Your task to perform on an android device: open chrome privacy settings Image 0: 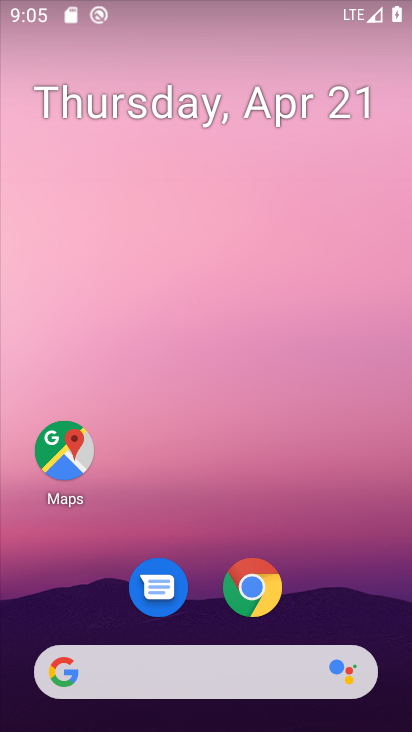
Step 0: click (258, 585)
Your task to perform on an android device: open chrome privacy settings Image 1: 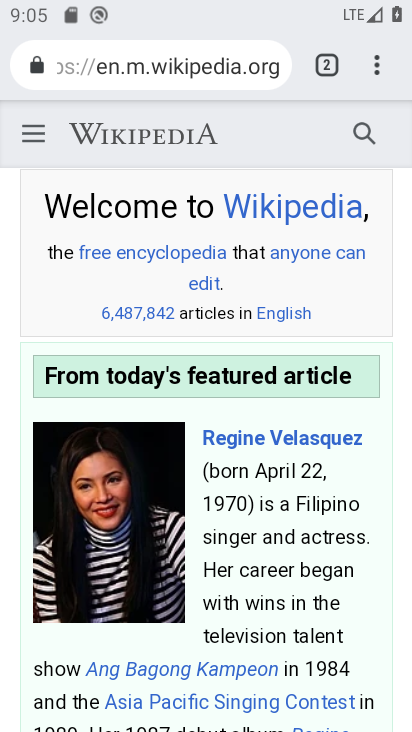
Step 1: click (374, 59)
Your task to perform on an android device: open chrome privacy settings Image 2: 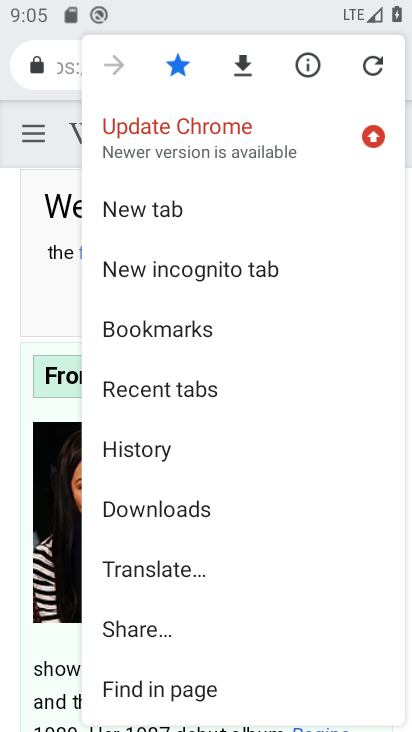
Step 2: drag from (335, 626) to (335, 400)
Your task to perform on an android device: open chrome privacy settings Image 3: 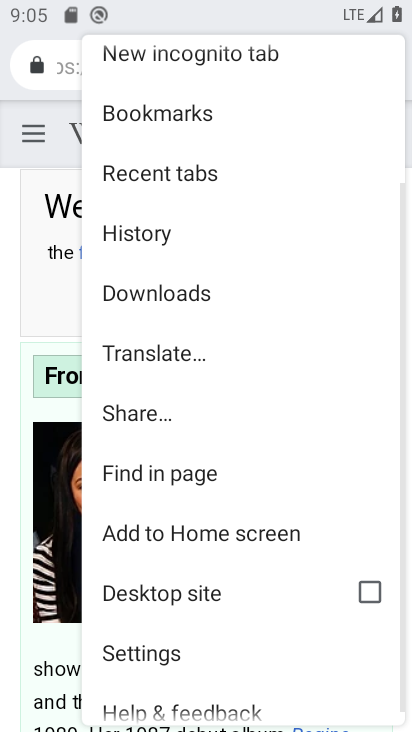
Step 3: click (144, 646)
Your task to perform on an android device: open chrome privacy settings Image 4: 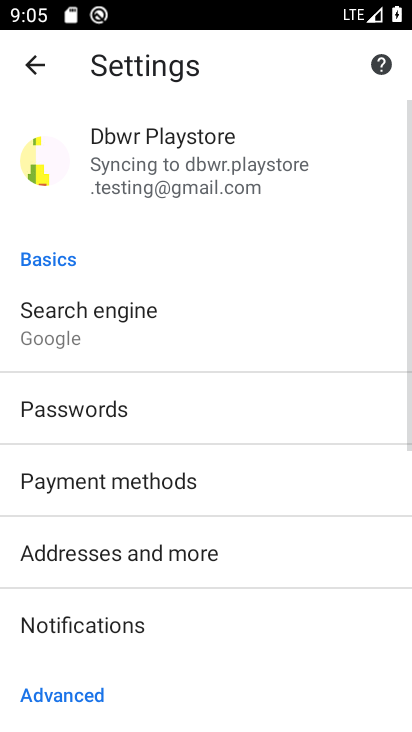
Step 4: drag from (335, 537) to (354, 326)
Your task to perform on an android device: open chrome privacy settings Image 5: 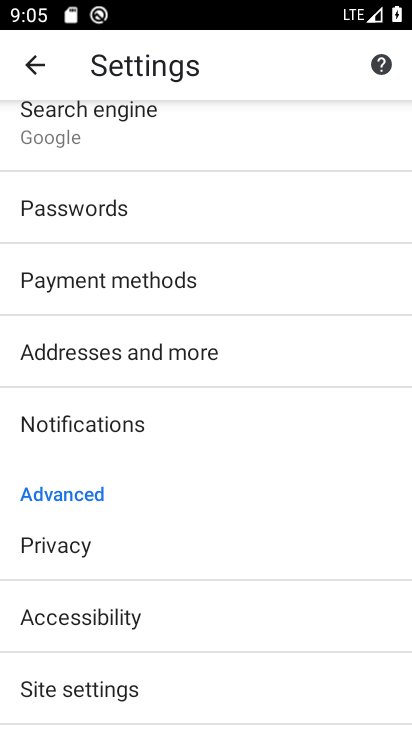
Step 5: drag from (347, 417) to (350, 383)
Your task to perform on an android device: open chrome privacy settings Image 6: 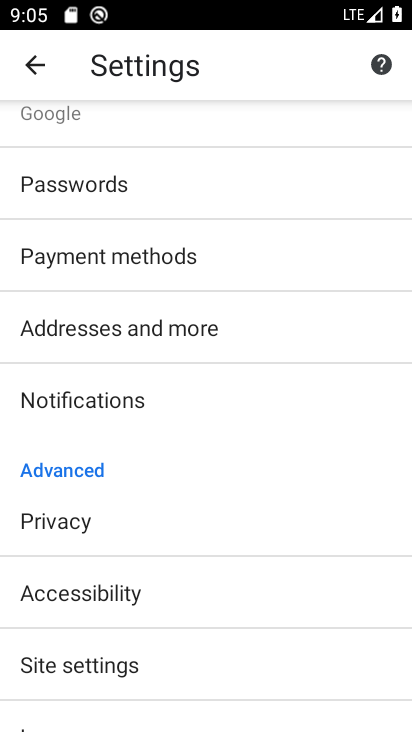
Step 6: click (63, 511)
Your task to perform on an android device: open chrome privacy settings Image 7: 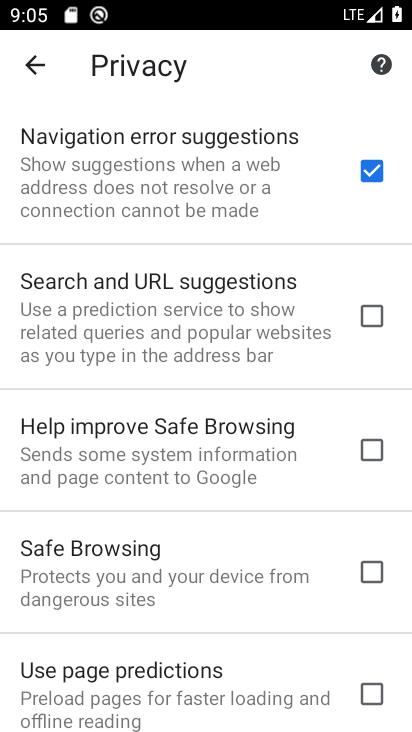
Step 7: task complete